Your task to perform on an android device: Open the map Image 0: 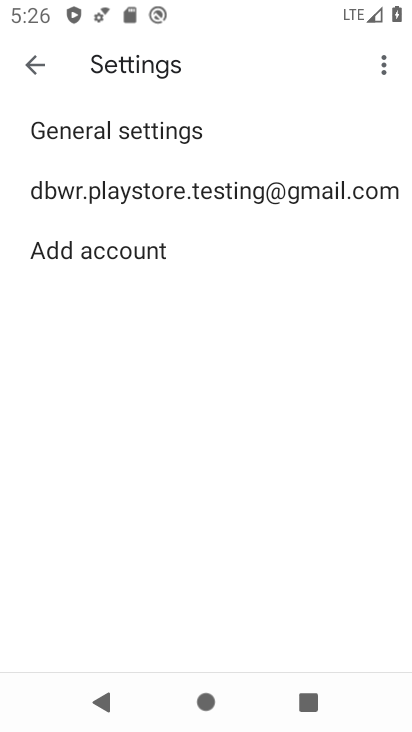
Step 0: press home button
Your task to perform on an android device: Open the map Image 1: 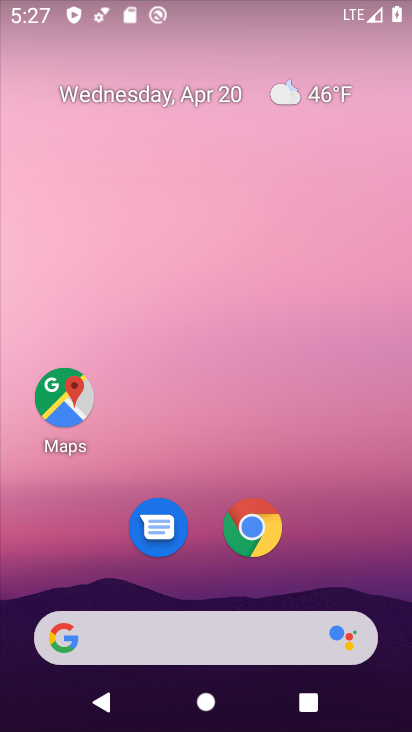
Step 1: click (68, 408)
Your task to perform on an android device: Open the map Image 2: 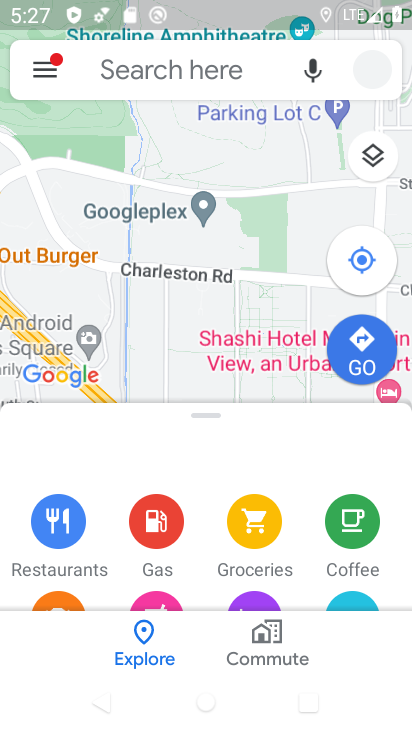
Step 2: task complete